Your task to perform on an android device: star an email in the gmail app Image 0: 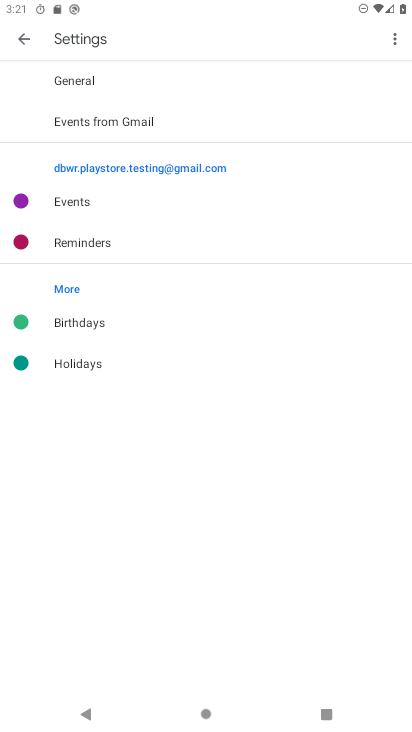
Step 0: press home button
Your task to perform on an android device: star an email in the gmail app Image 1: 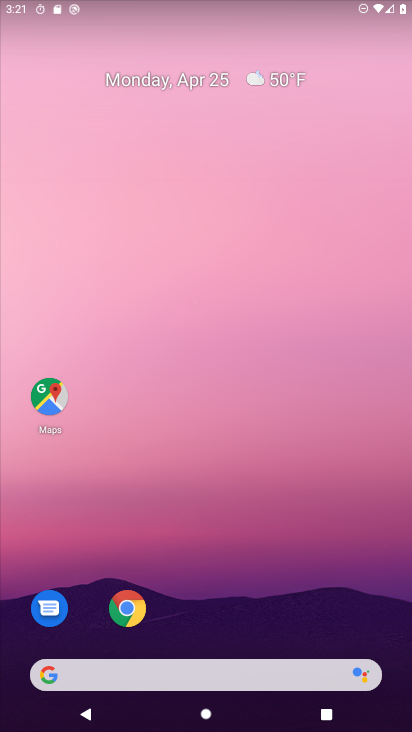
Step 1: drag from (198, 491) to (199, 123)
Your task to perform on an android device: star an email in the gmail app Image 2: 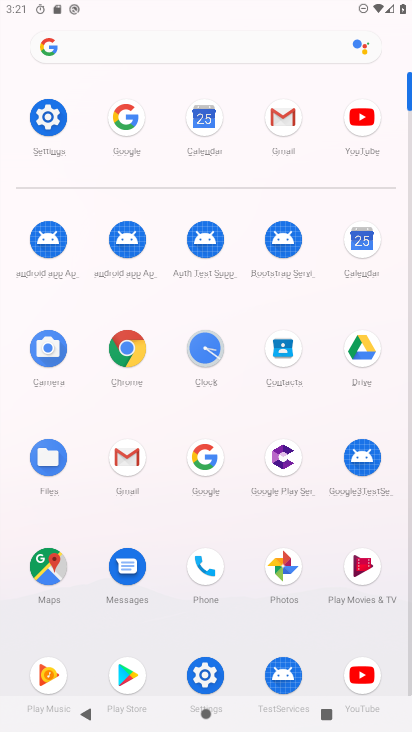
Step 2: click (130, 460)
Your task to perform on an android device: star an email in the gmail app Image 3: 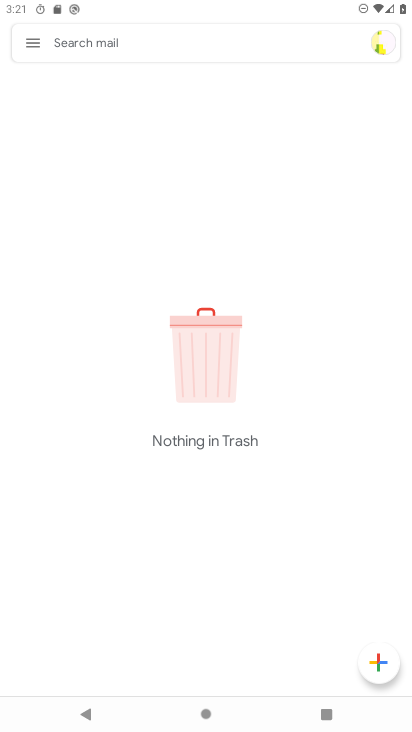
Step 3: click (26, 40)
Your task to perform on an android device: star an email in the gmail app Image 4: 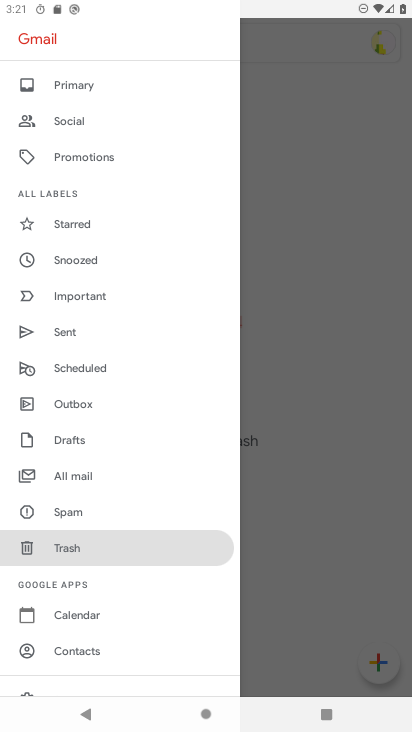
Step 4: click (77, 474)
Your task to perform on an android device: star an email in the gmail app Image 5: 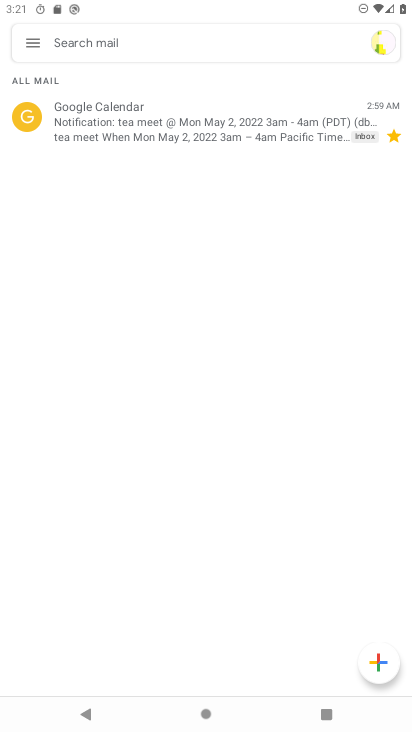
Step 5: click (156, 116)
Your task to perform on an android device: star an email in the gmail app Image 6: 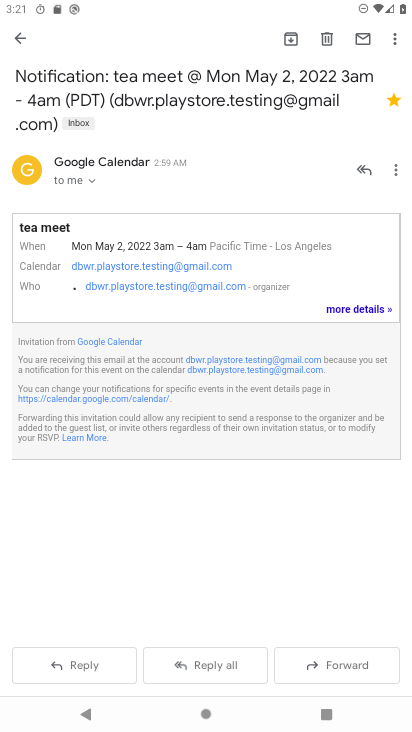
Step 6: task complete